Your task to perform on an android device: stop showing notifications on the lock screen Image 0: 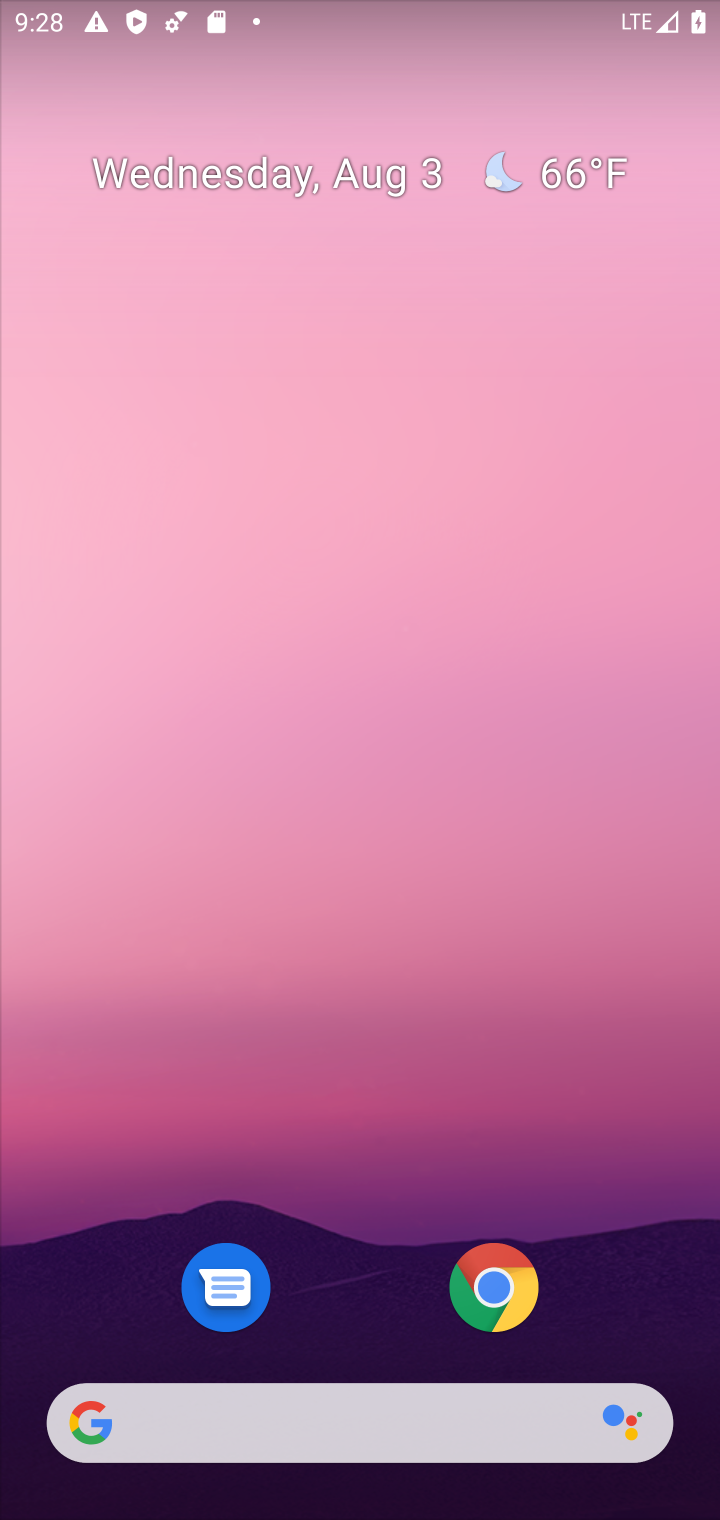
Step 0: drag from (345, 1074) to (354, 69)
Your task to perform on an android device: stop showing notifications on the lock screen Image 1: 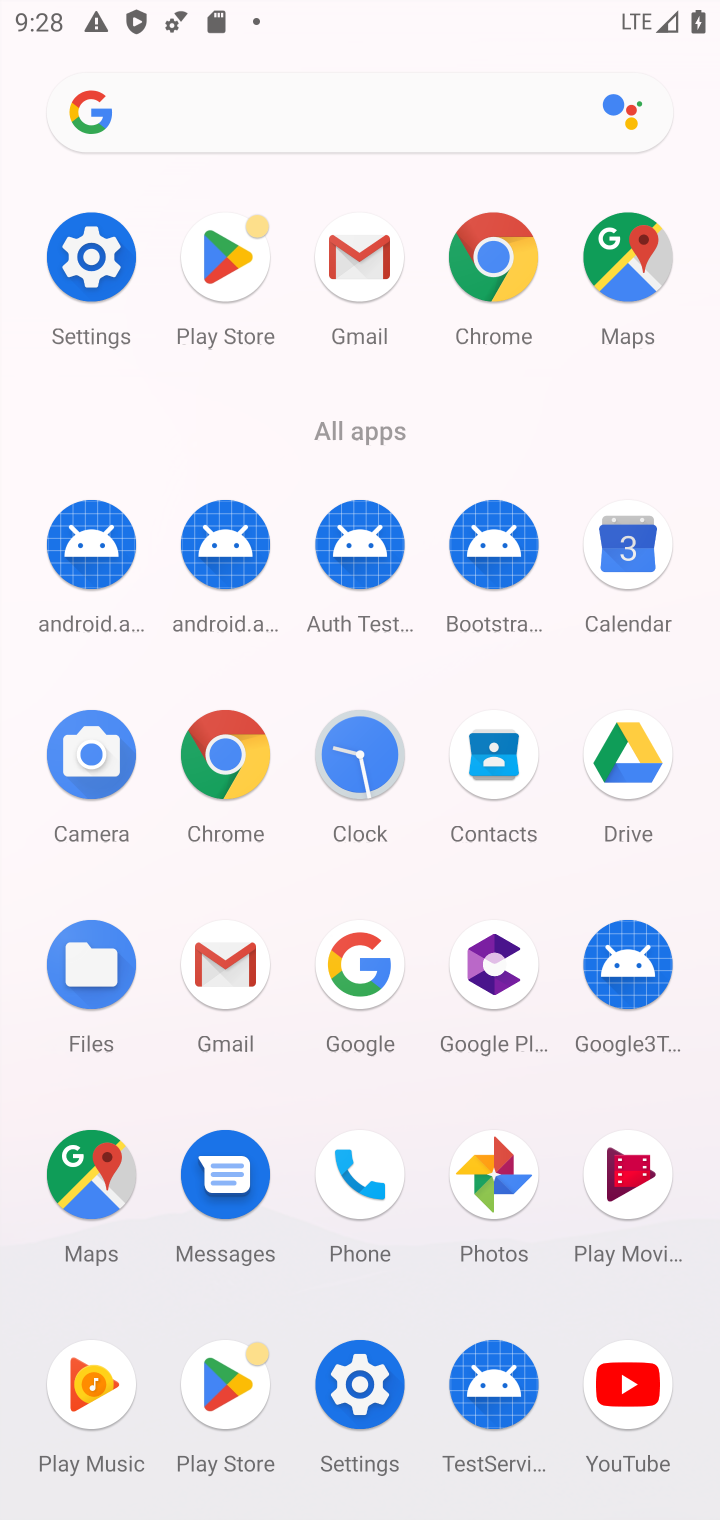
Step 1: click (361, 1385)
Your task to perform on an android device: stop showing notifications on the lock screen Image 2: 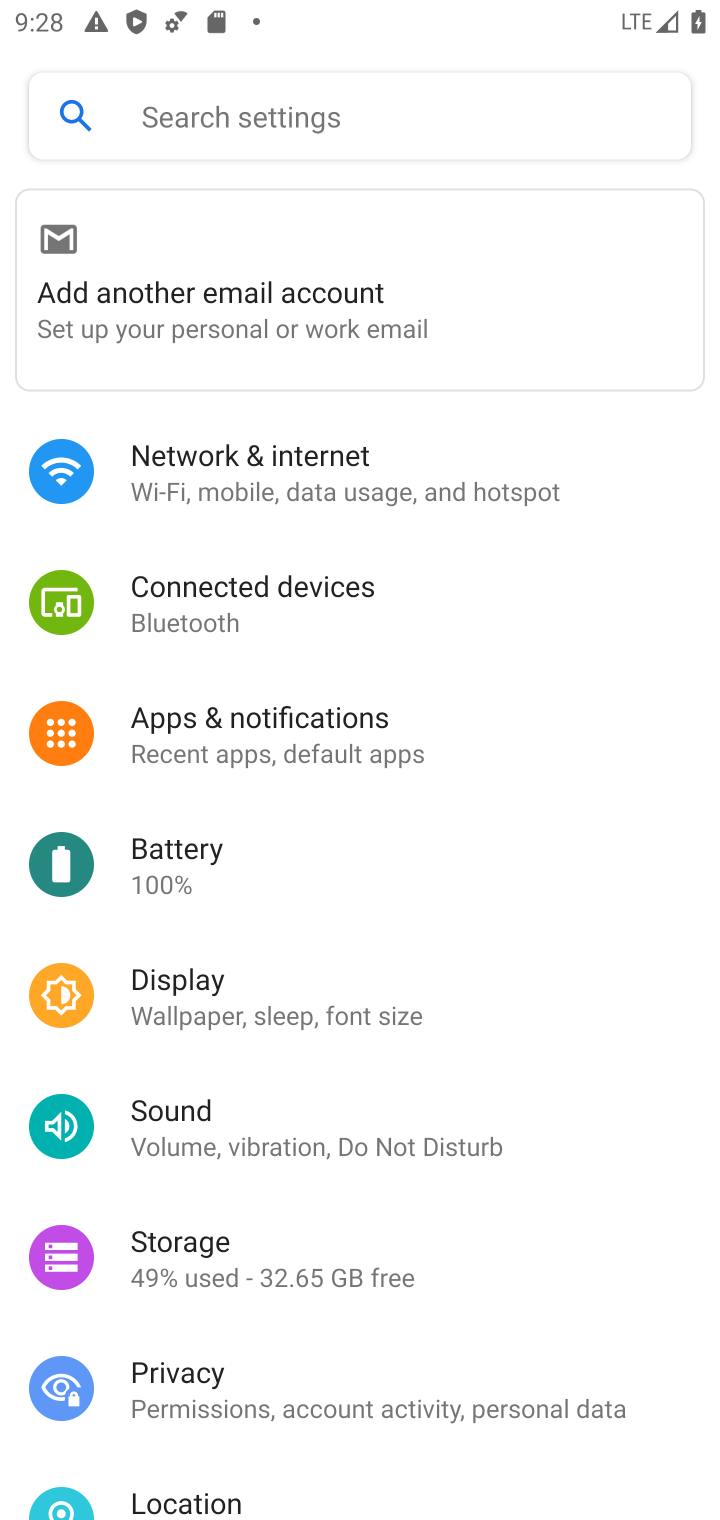
Step 2: click (339, 727)
Your task to perform on an android device: stop showing notifications on the lock screen Image 3: 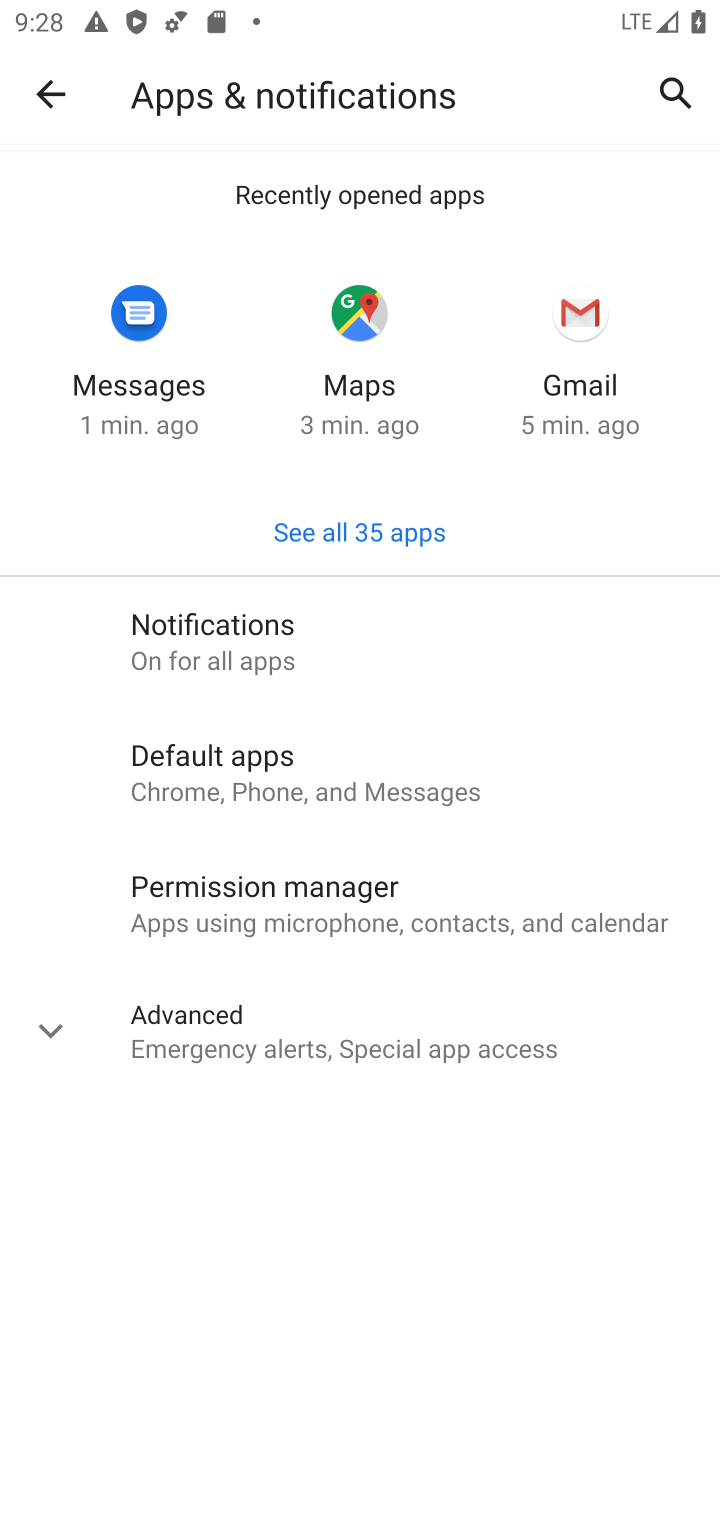
Step 3: click (202, 640)
Your task to perform on an android device: stop showing notifications on the lock screen Image 4: 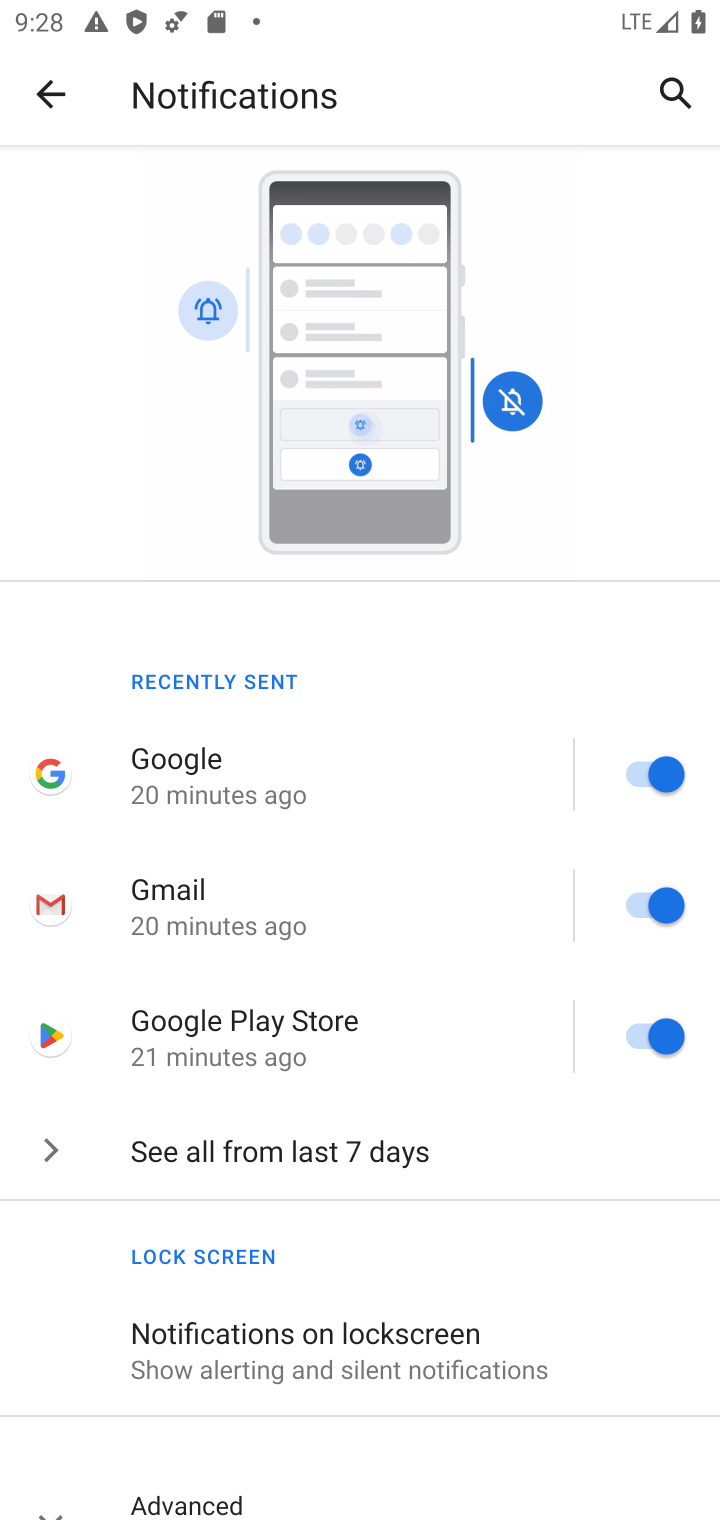
Step 4: click (393, 1327)
Your task to perform on an android device: stop showing notifications on the lock screen Image 5: 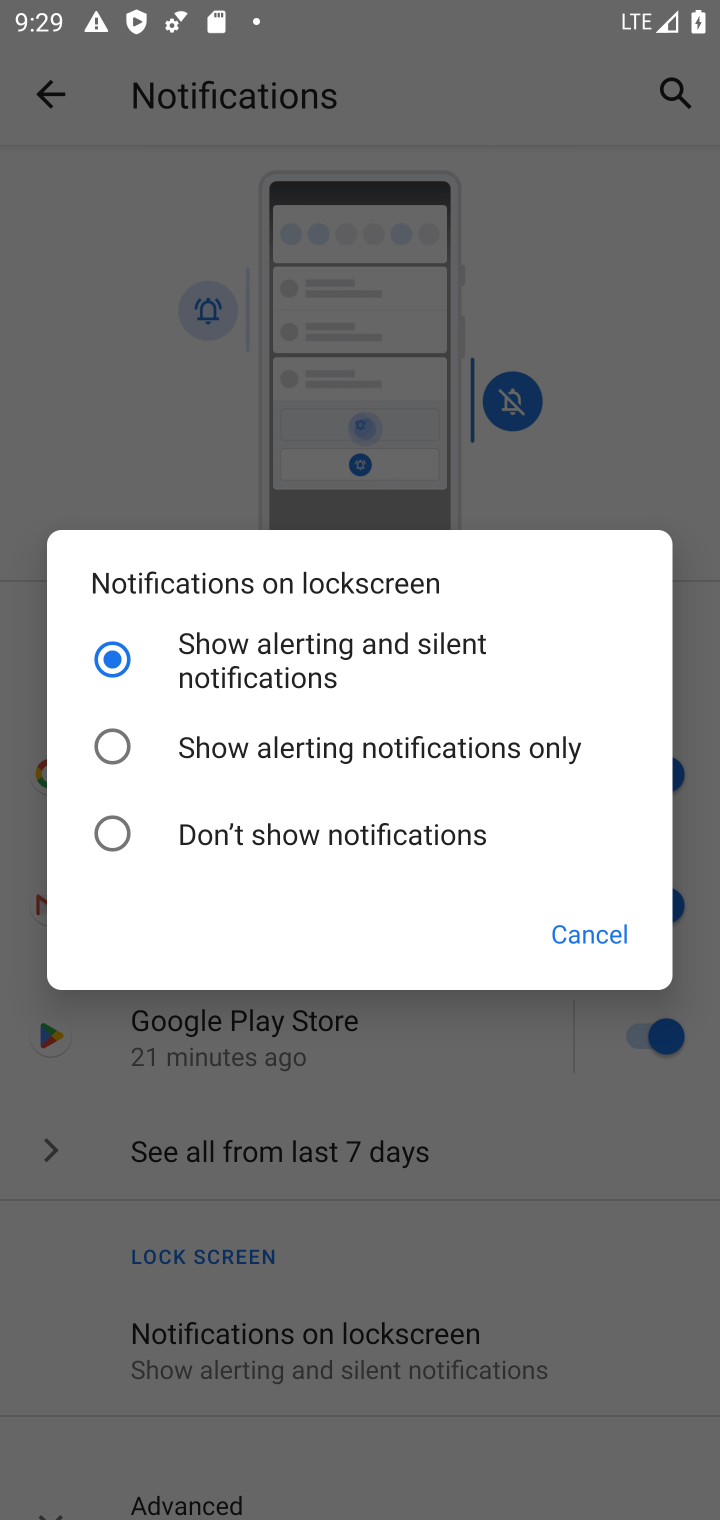
Step 5: click (276, 839)
Your task to perform on an android device: stop showing notifications on the lock screen Image 6: 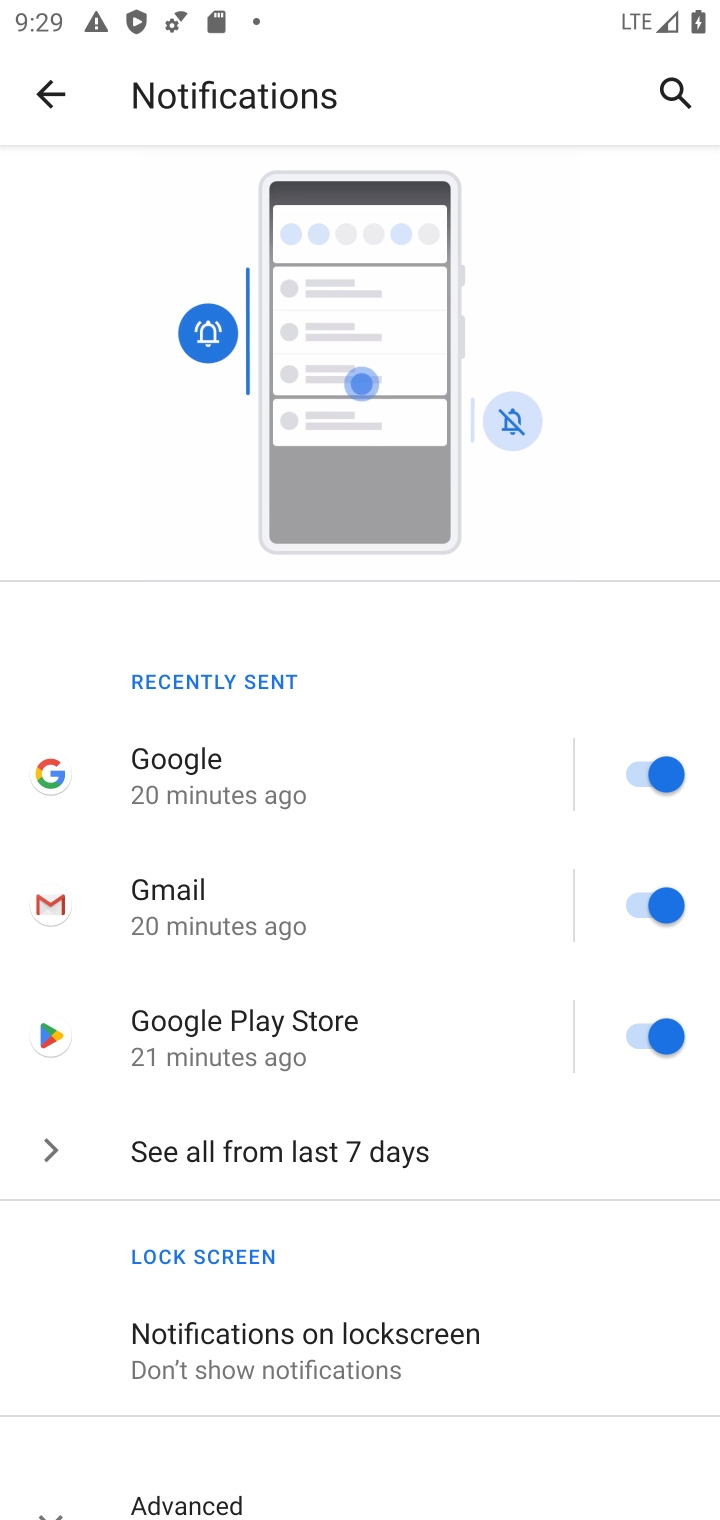
Step 6: task complete